Your task to perform on an android device: turn pop-ups on in chrome Image 0: 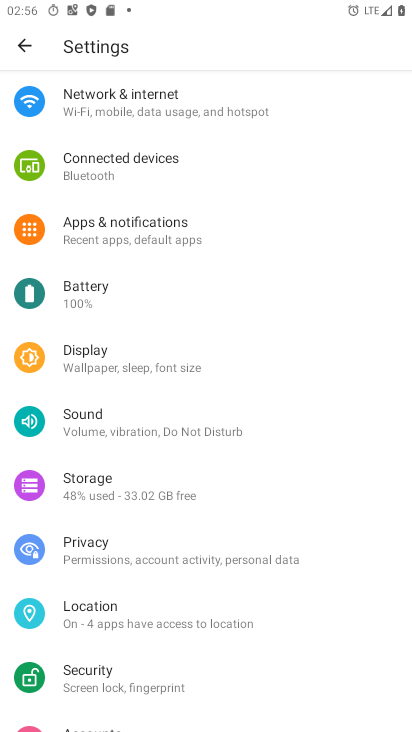
Step 0: press home button
Your task to perform on an android device: turn pop-ups on in chrome Image 1: 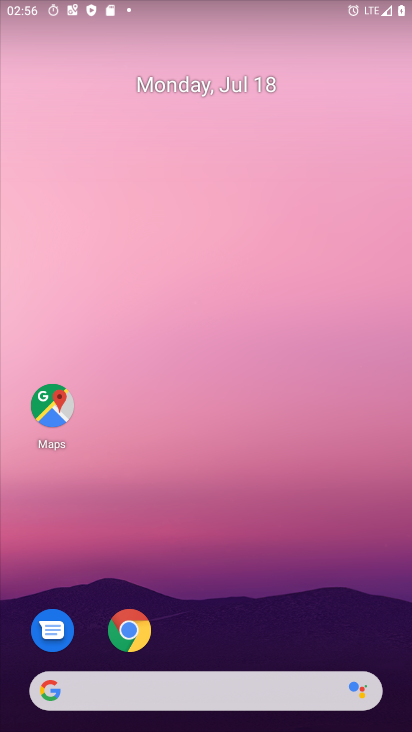
Step 1: click (152, 648)
Your task to perform on an android device: turn pop-ups on in chrome Image 2: 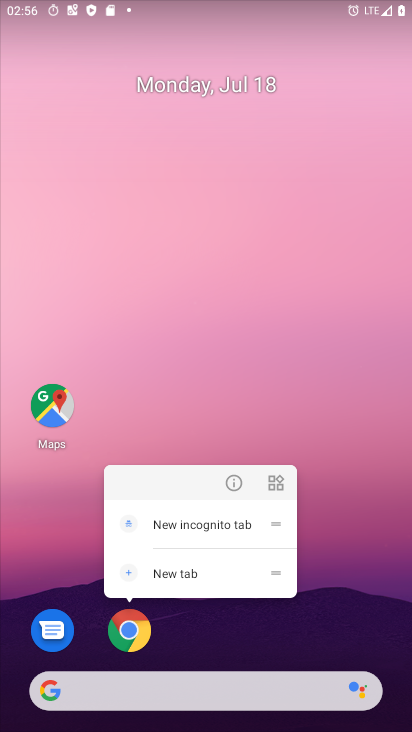
Step 2: click (188, 569)
Your task to perform on an android device: turn pop-ups on in chrome Image 3: 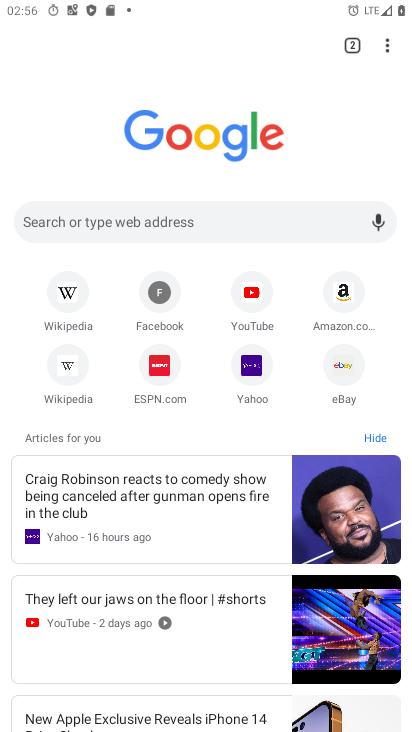
Step 3: click (390, 38)
Your task to perform on an android device: turn pop-ups on in chrome Image 4: 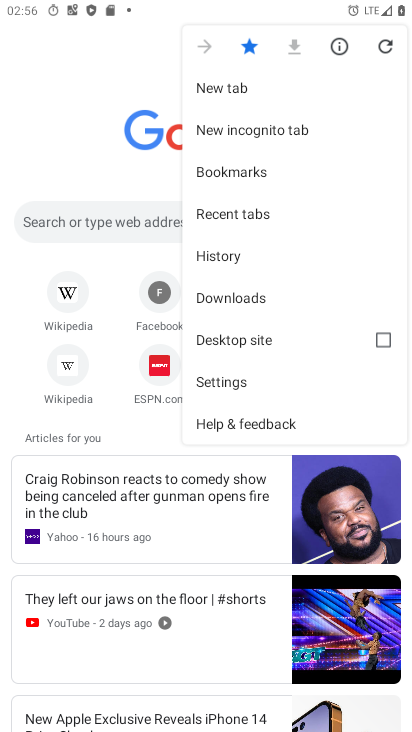
Step 4: click (195, 383)
Your task to perform on an android device: turn pop-ups on in chrome Image 5: 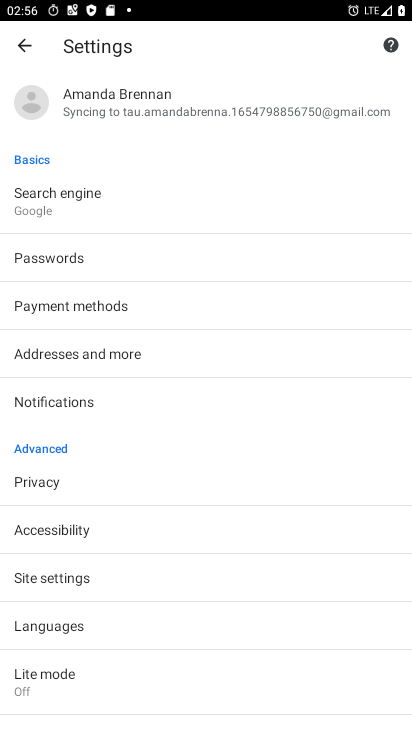
Step 5: click (138, 588)
Your task to perform on an android device: turn pop-ups on in chrome Image 6: 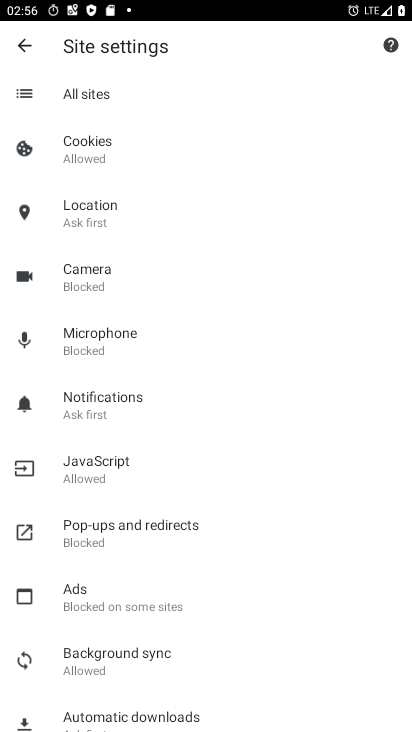
Step 6: click (135, 538)
Your task to perform on an android device: turn pop-ups on in chrome Image 7: 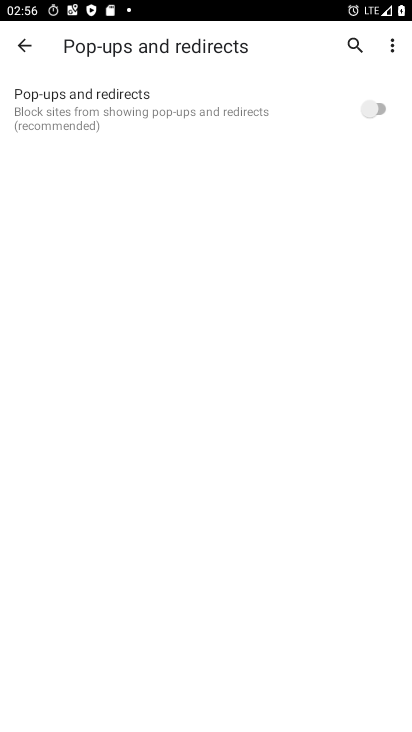
Step 7: click (382, 113)
Your task to perform on an android device: turn pop-ups on in chrome Image 8: 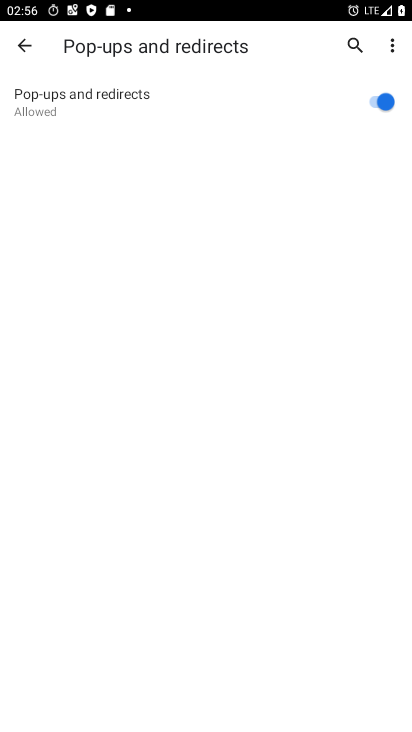
Step 8: task complete